Your task to perform on an android device: Is it going to rain tomorrow? Image 0: 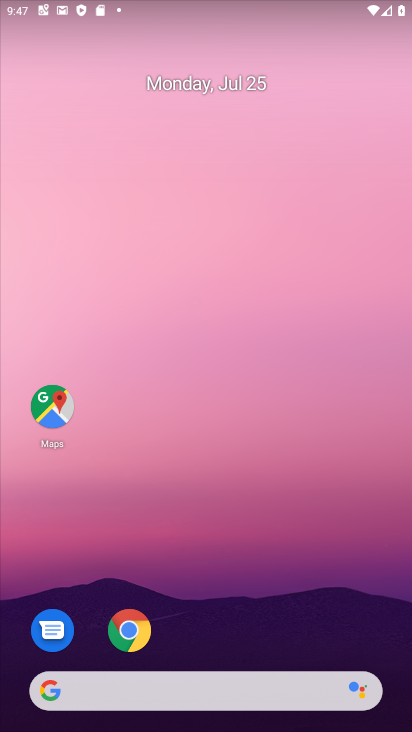
Step 0: press home button
Your task to perform on an android device: Is it going to rain tomorrow? Image 1: 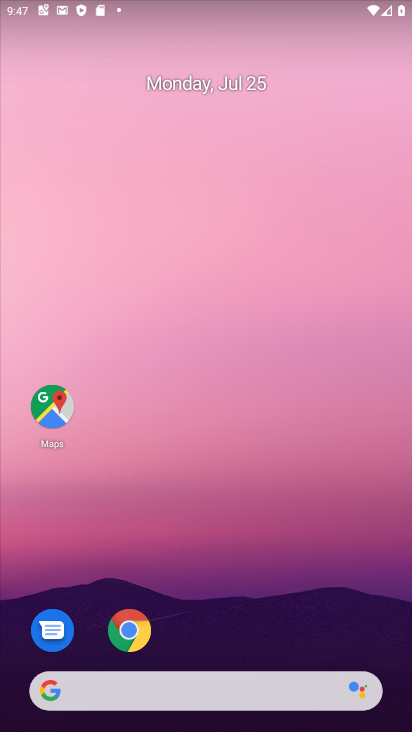
Step 1: click (42, 697)
Your task to perform on an android device: Is it going to rain tomorrow? Image 2: 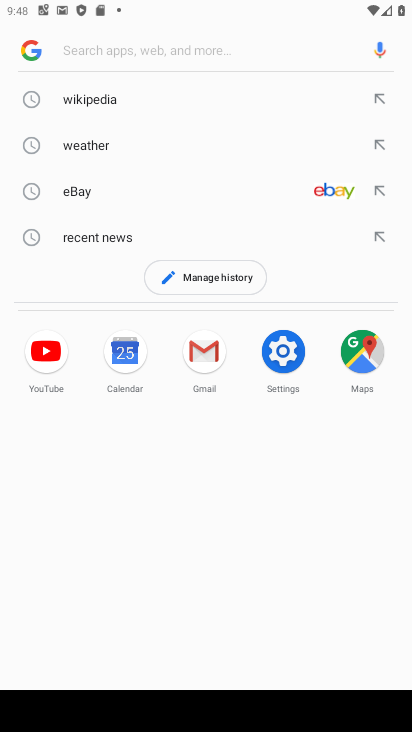
Step 2: type "rain tomorrow?"
Your task to perform on an android device: Is it going to rain tomorrow? Image 3: 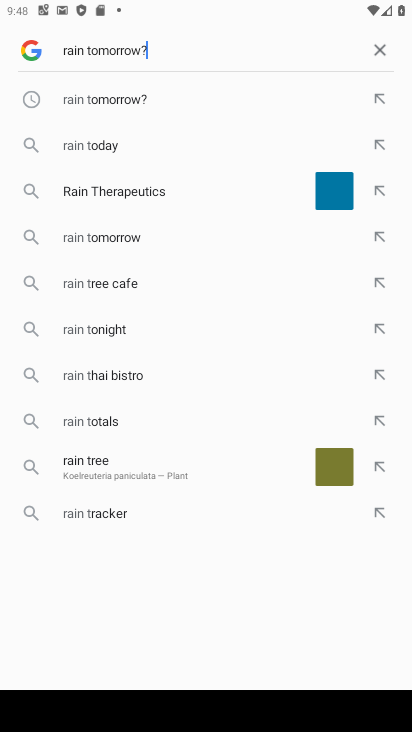
Step 3: press enter
Your task to perform on an android device: Is it going to rain tomorrow? Image 4: 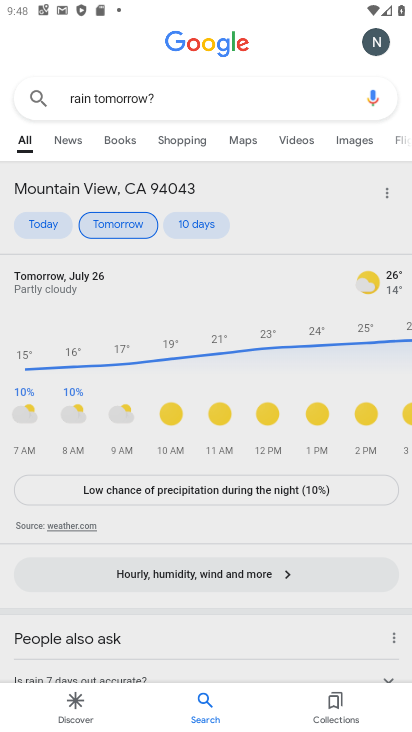
Step 4: task complete